Your task to perform on an android device: What's the weather going to be tomorrow? Image 0: 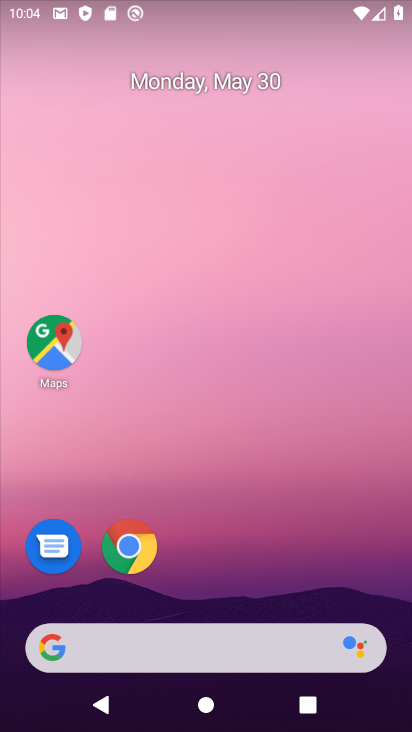
Step 0: drag from (225, 603) to (226, 9)
Your task to perform on an android device: What's the weather going to be tomorrow? Image 1: 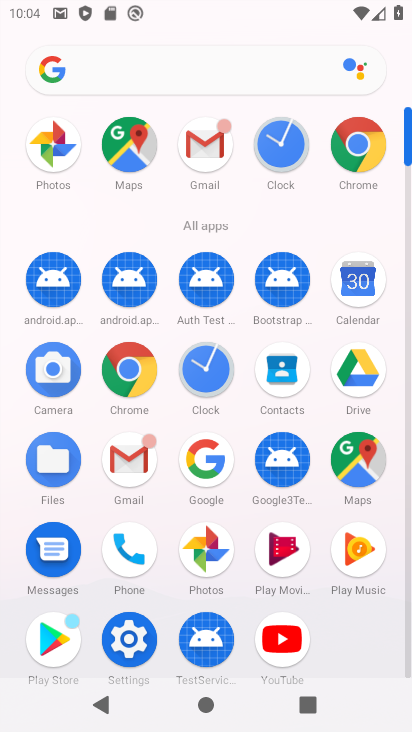
Step 1: press back button
Your task to perform on an android device: What's the weather going to be tomorrow? Image 2: 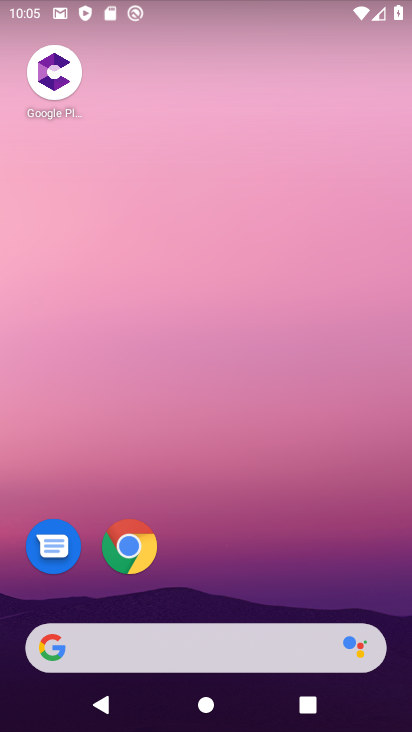
Step 2: drag from (20, 388) to (411, 344)
Your task to perform on an android device: What's the weather going to be tomorrow? Image 3: 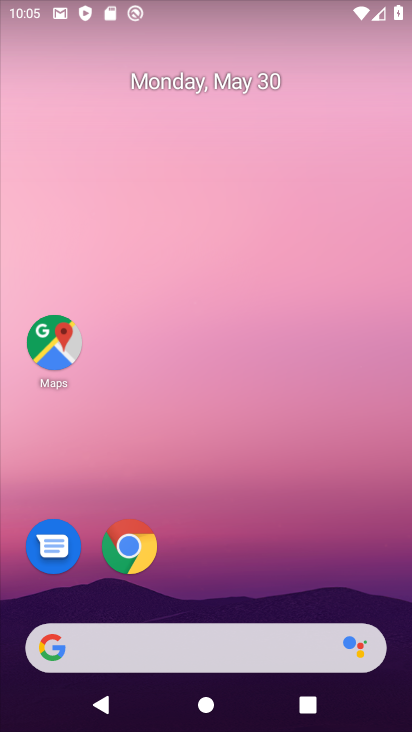
Step 3: drag from (7, 244) to (387, 264)
Your task to perform on an android device: What's the weather going to be tomorrow? Image 4: 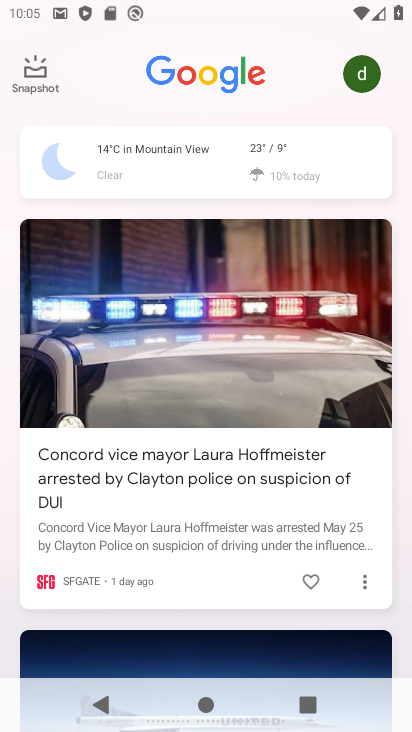
Step 4: click (285, 163)
Your task to perform on an android device: What's the weather going to be tomorrow? Image 5: 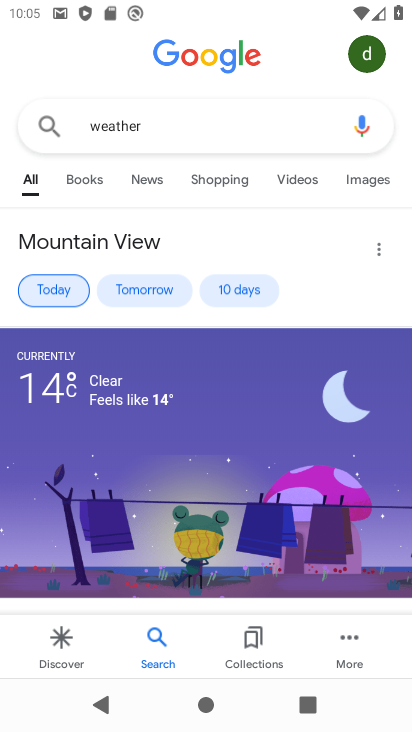
Step 5: click (136, 290)
Your task to perform on an android device: What's the weather going to be tomorrow? Image 6: 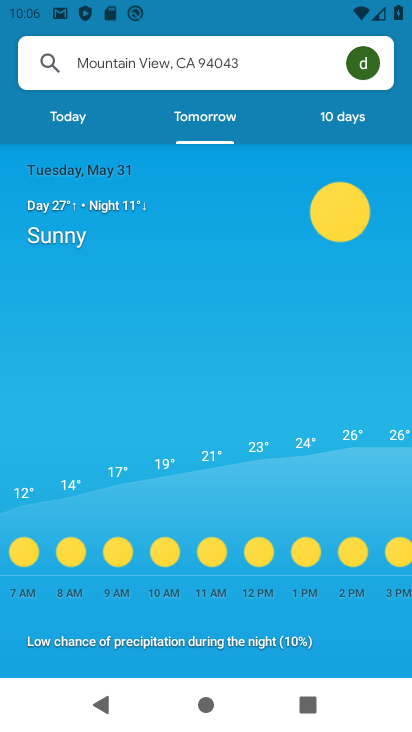
Step 6: task complete